Your task to perform on an android device: change the upload size in google photos Image 0: 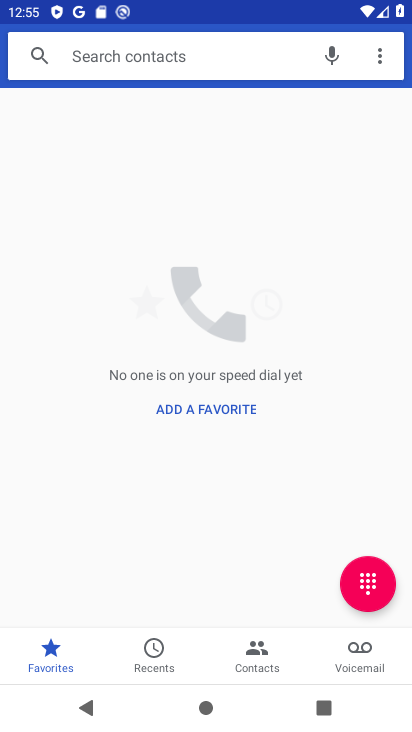
Step 0: press home button
Your task to perform on an android device: change the upload size in google photos Image 1: 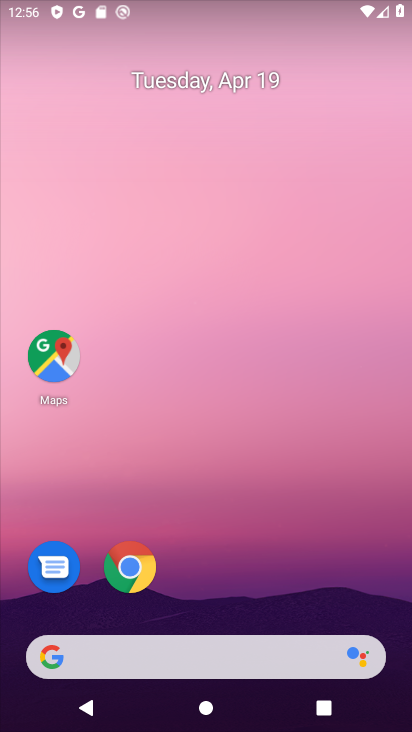
Step 1: drag from (263, 562) to (250, 93)
Your task to perform on an android device: change the upload size in google photos Image 2: 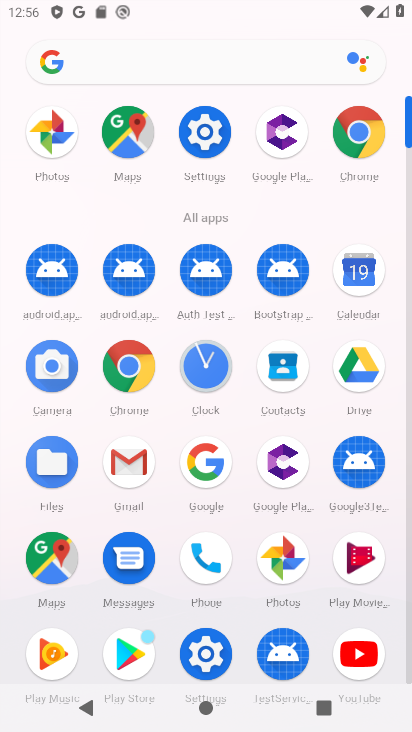
Step 2: click (56, 140)
Your task to perform on an android device: change the upload size in google photos Image 3: 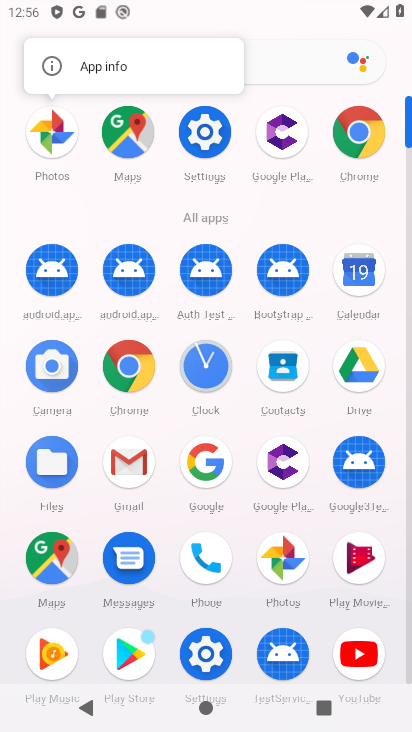
Step 3: click (275, 559)
Your task to perform on an android device: change the upload size in google photos Image 4: 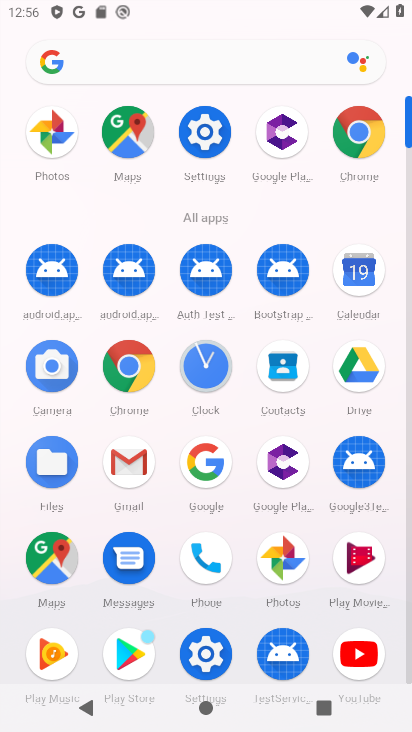
Step 4: click (275, 557)
Your task to perform on an android device: change the upload size in google photos Image 5: 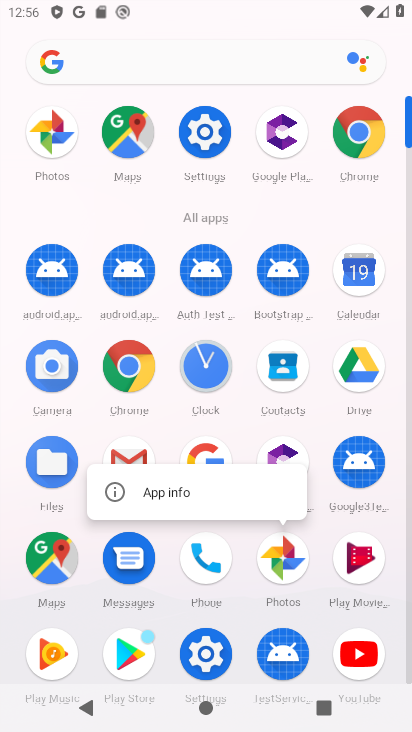
Step 5: click (275, 554)
Your task to perform on an android device: change the upload size in google photos Image 6: 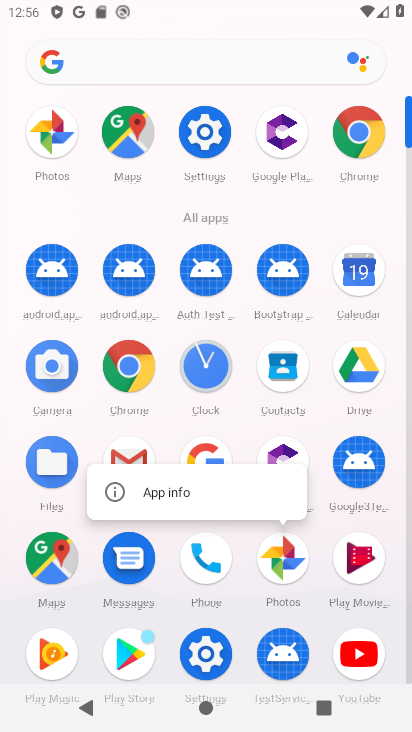
Step 6: click (281, 552)
Your task to perform on an android device: change the upload size in google photos Image 7: 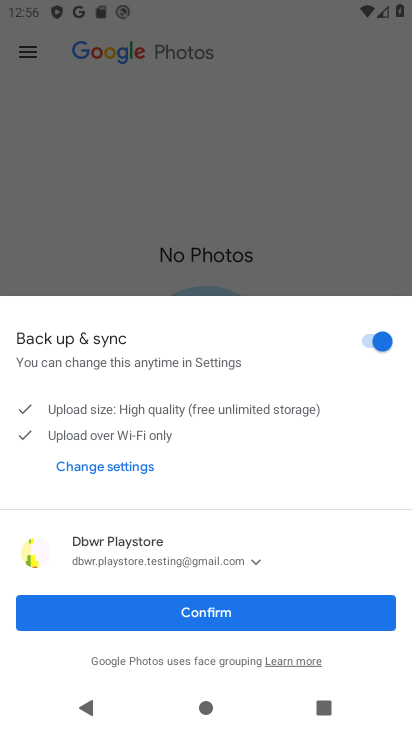
Step 7: click (187, 613)
Your task to perform on an android device: change the upload size in google photos Image 8: 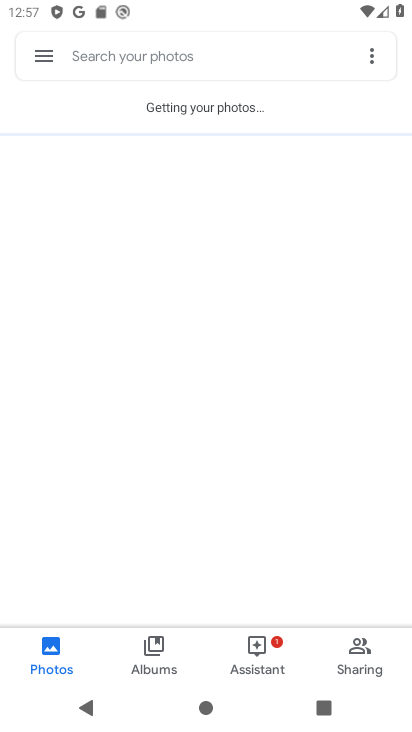
Step 8: click (49, 54)
Your task to perform on an android device: change the upload size in google photos Image 9: 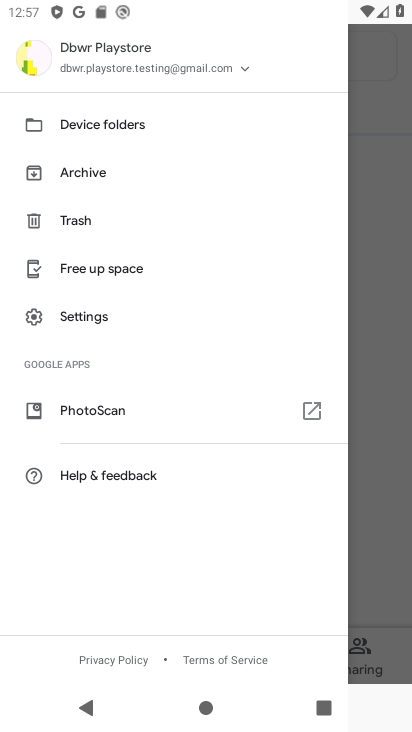
Step 9: drag from (138, 53) to (215, 407)
Your task to perform on an android device: change the upload size in google photos Image 10: 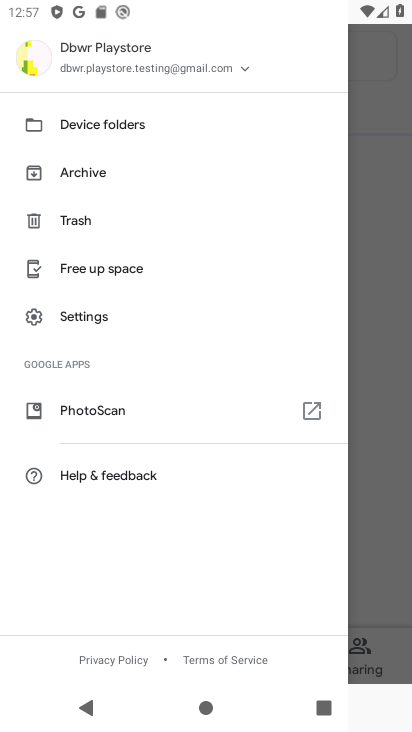
Step 10: click (81, 313)
Your task to perform on an android device: change the upload size in google photos Image 11: 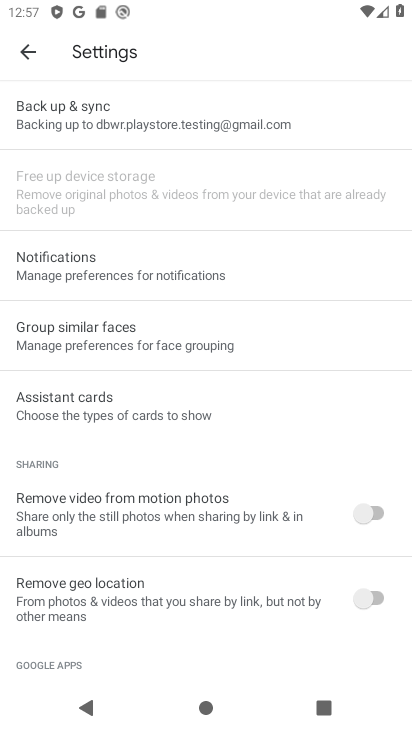
Step 11: click (168, 130)
Your task to perform on an android device: change the upload size in google photos Image 12: 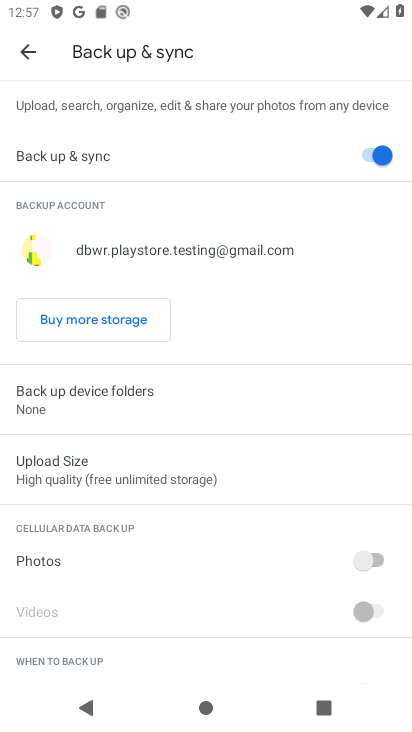
Step 12: click (147, 486)
Your task to perform on an android device: change the upload size in google photos Image 13: 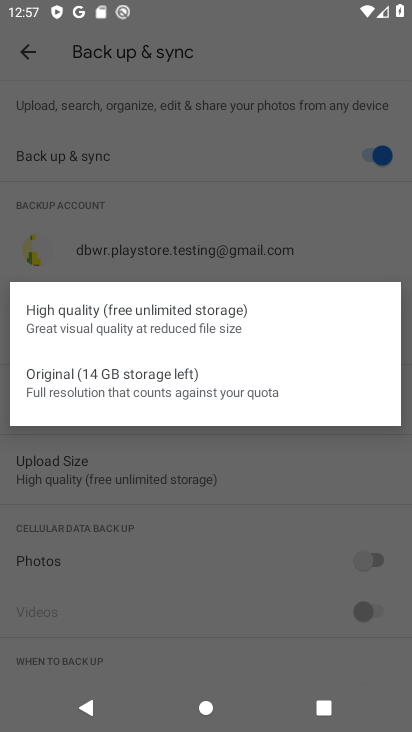
Step 13: click (148, 400)
Your task to perform on an android device: change the upload size in google photos Image 14: 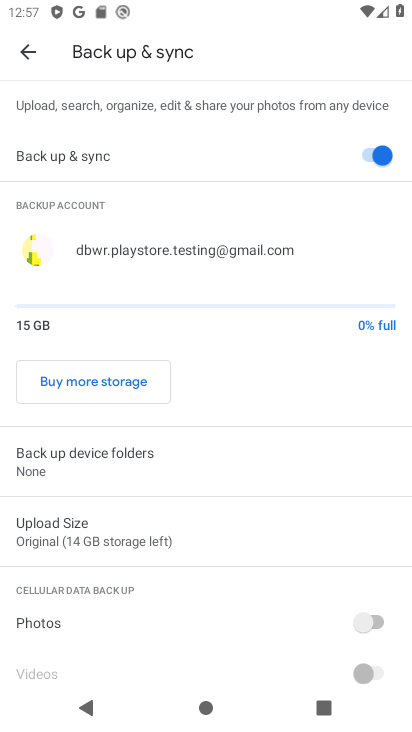
Step 14: task complete